Your task to perform on an android device: turn off picture-in-picture Image 0: 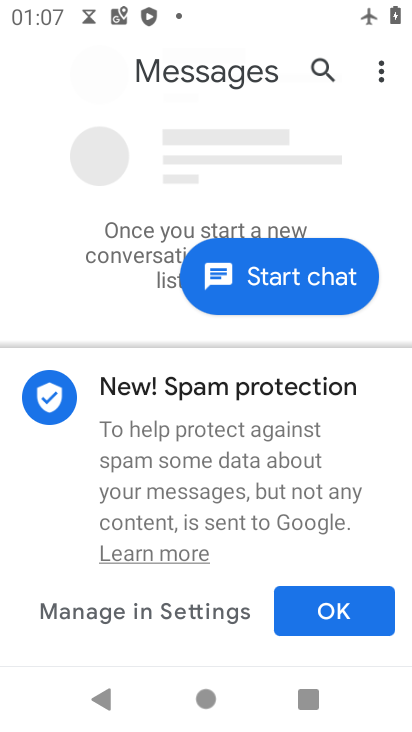
Step 0: press home button
Your task to perform on an android device: turn off picture-in-picture Image 1: 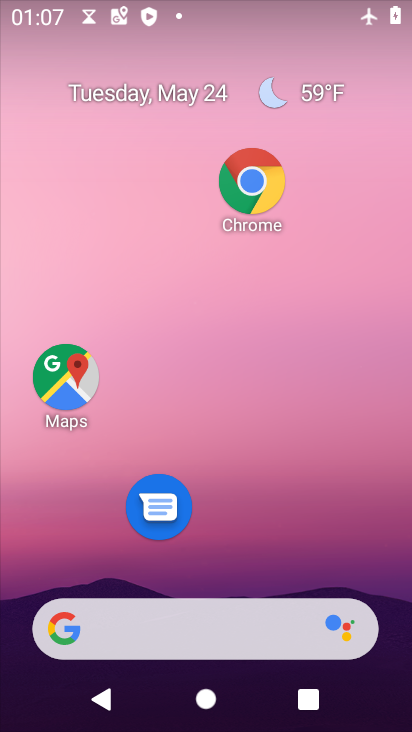
Step 1: drag from (209, 536) to (267, 264)
Your task to perform on an android device: turn off picture-in-picture Image 2: 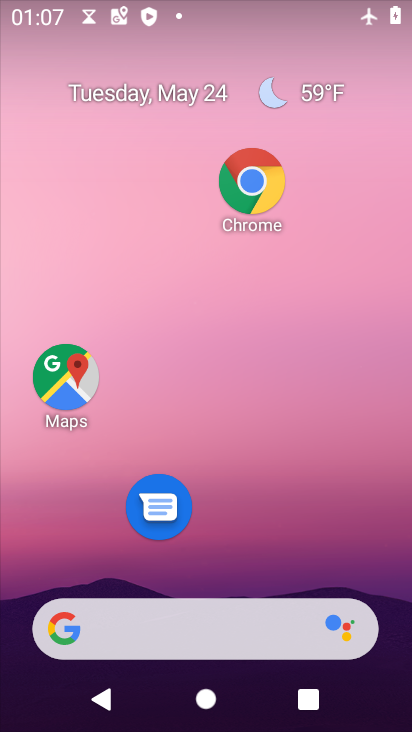
Step 2: drag from (204, 582) to (240, 383)
Your task to perform on an android device: turn off picture-in-picture Image 3: 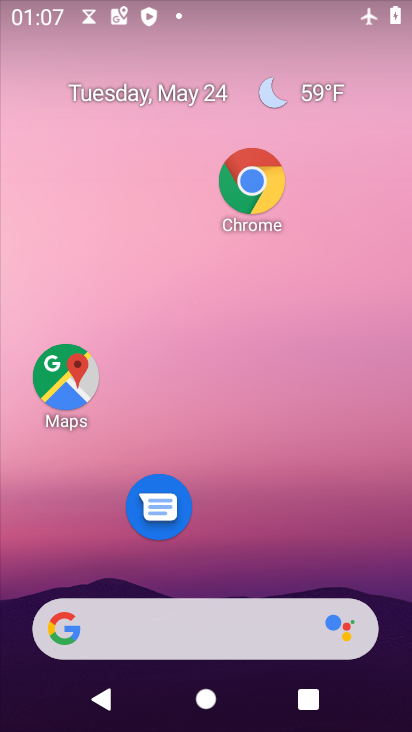
Step 3: drag from (263, 567) to (296, 322)
Your task to perform on an android device: turn off picture-in-picture Image 4: 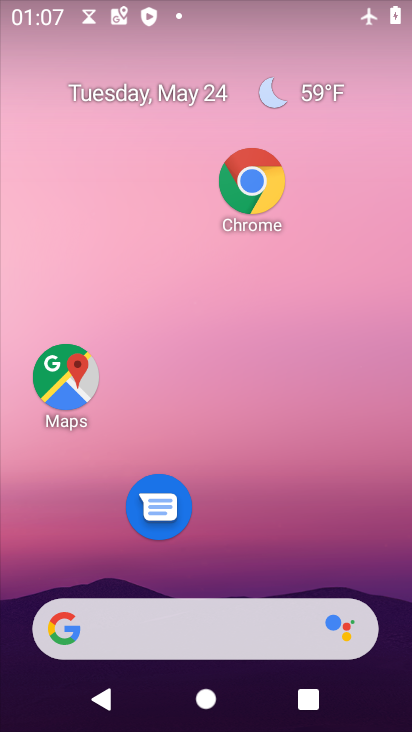
Step 4: drag from (239, 434) to (270, 207)
Your task to perform on an android device: turn off picture-in-picture Image 5: 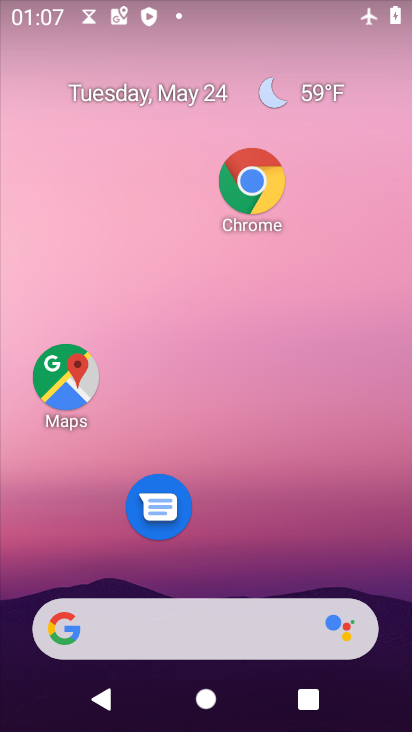
Step 5: drag from (197, 618) to (261, 289)
Your task to perform on an android device: turn off picture-in-picture Image 6: 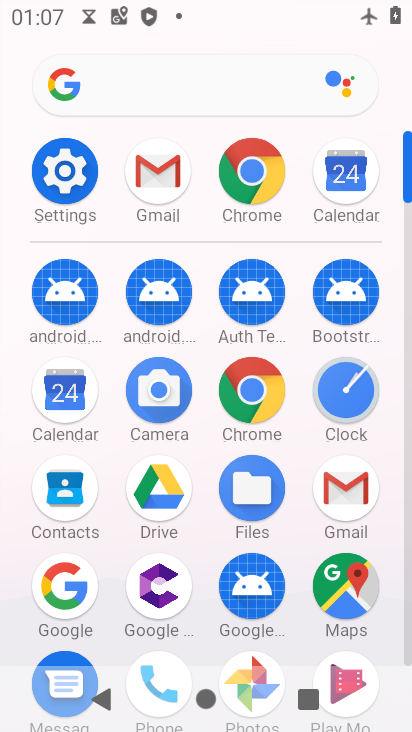
Step 6: click (68, 164)
Your task to perform on an android device: turn off picture-in-picture Image 7: 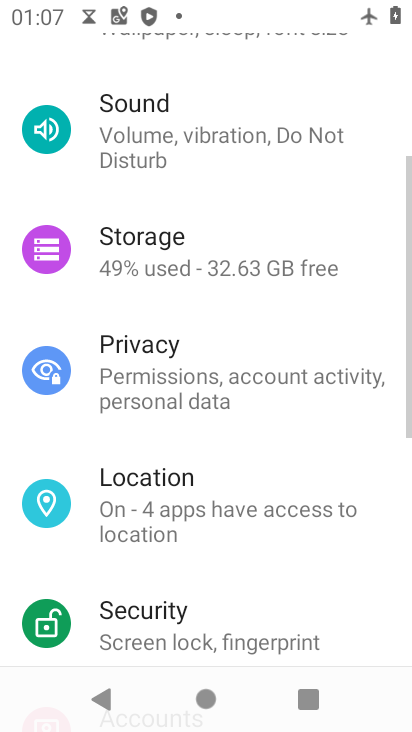
Step 7: drag from (283, 617) to (326, 209)
Your task to perform on an android device: turn off picture-in-picture Image 8: 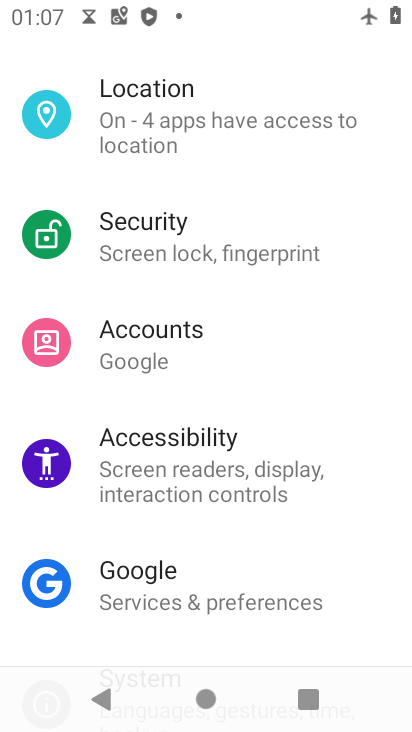
Step 8: click (199, 589)
Your task to perform on an android device: turn off picture-in-picture Image 9: 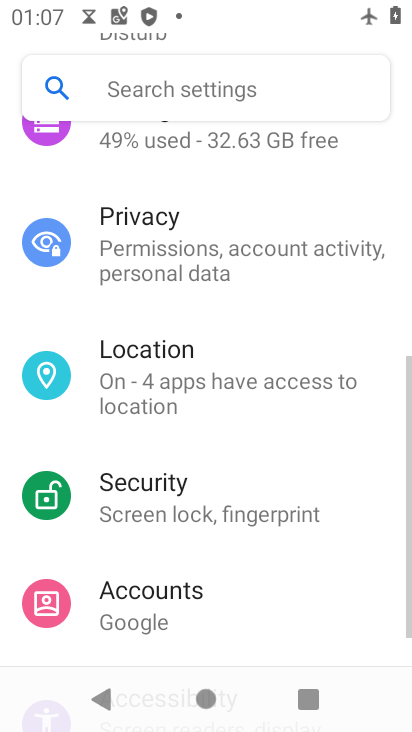
Step 9: drag from (225, 238) to (208, 651)
Your task to perform on an android device: turn off picture-in-picture Image 10: 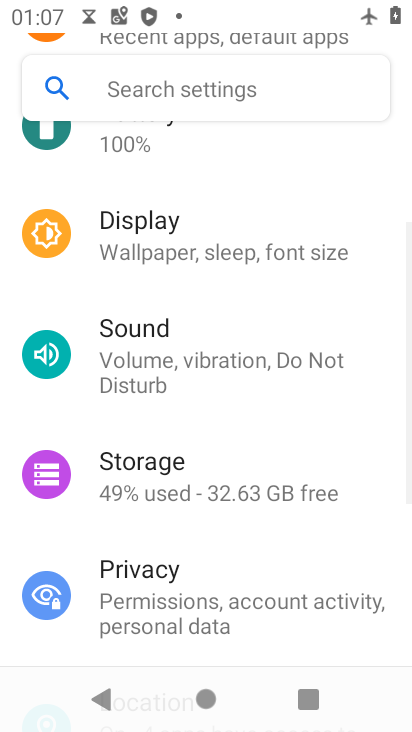
Step 10: drag from (207, 173) to (174, 595)
Your task to perform on an android device: turn off picture-in-picture Image 11: 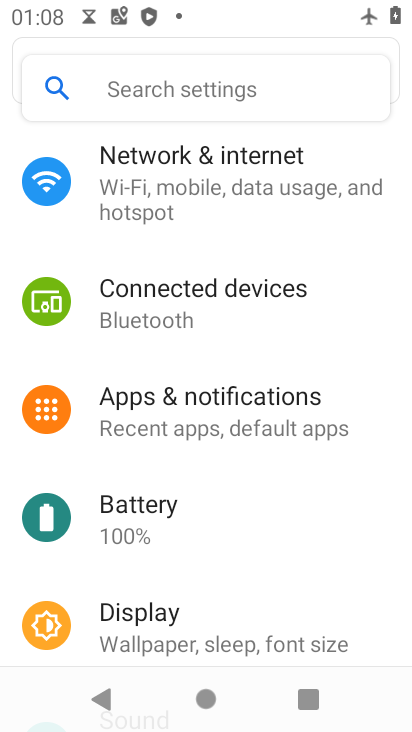
Step 11: drag from (229, 203) to (208, 501)
Your task to perform on an android device: turn off picture-in-picture Image 12: 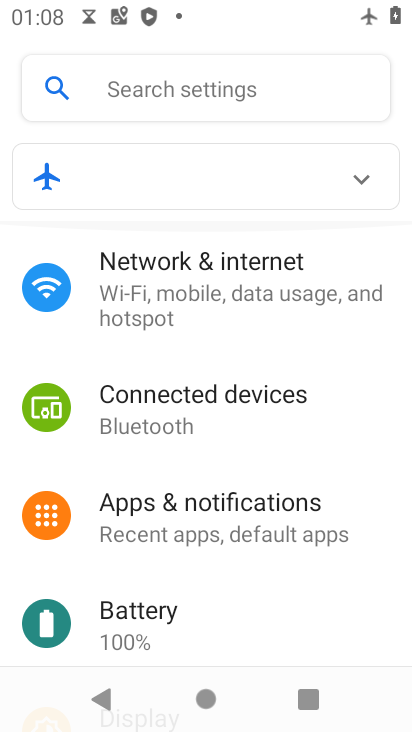
Step 12: click (198, 506)
Your task to perform on an android device: turn off picture-in-picture Image 13: 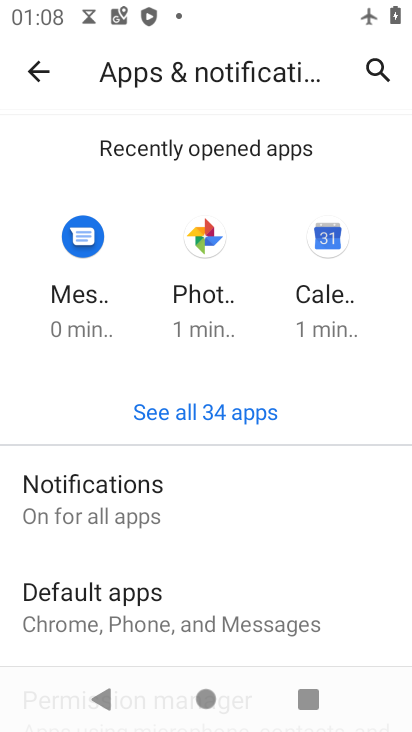
Step 13: click (176, 491)
Your task to perform on an android device: turn off picture-in-picture Image 14: 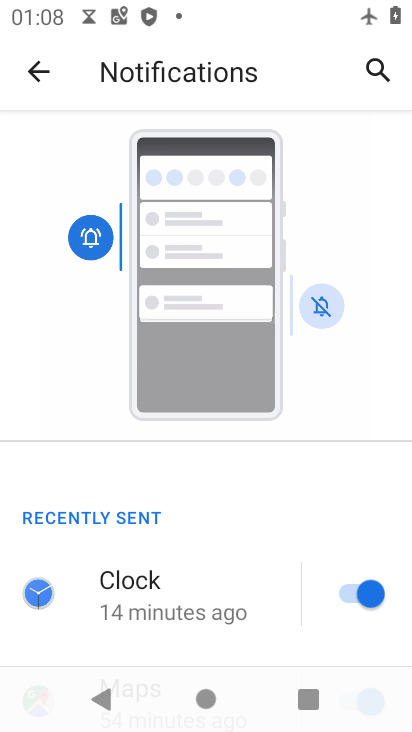
Step 14: drag from (210, 512) to (294, 136)
Your task to perform on an android device: turn off picture-in-picture Image 15: 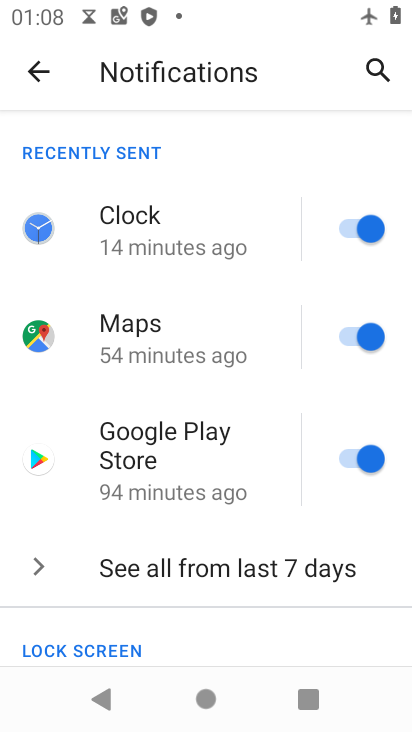
Step 15: drag from (202, 521) to (248, 126)
Your task to perform on an android device: turn off picture-in-picture Image 16: 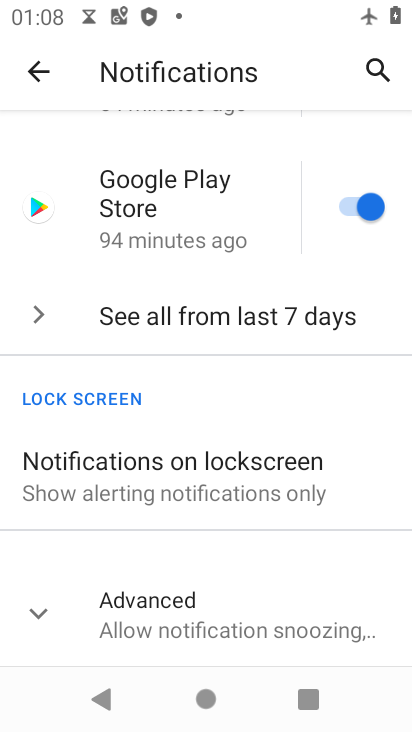
Step 16: drag from (224, 520) to (307, 151)
Your task to perform on an android device: turn off picture-in-picture Image 17: 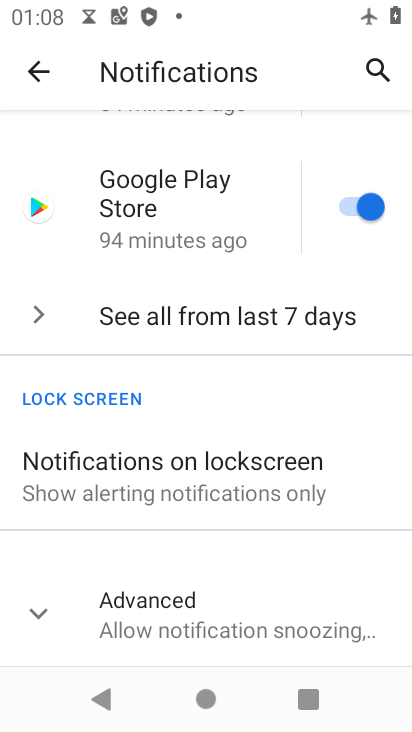
Step 17: click (189, 500)
Your task to perform on an android device: turn off picture-in-picture Image 18: 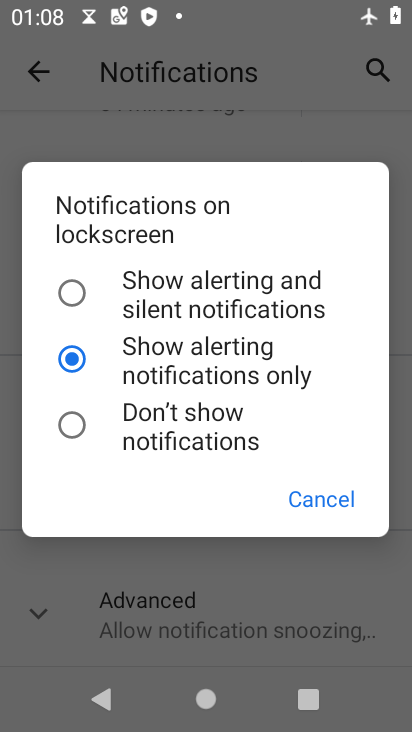
Step 18: click (287, 506)
Your task to perform on an android device: turn off picture-in-picture Image 19: 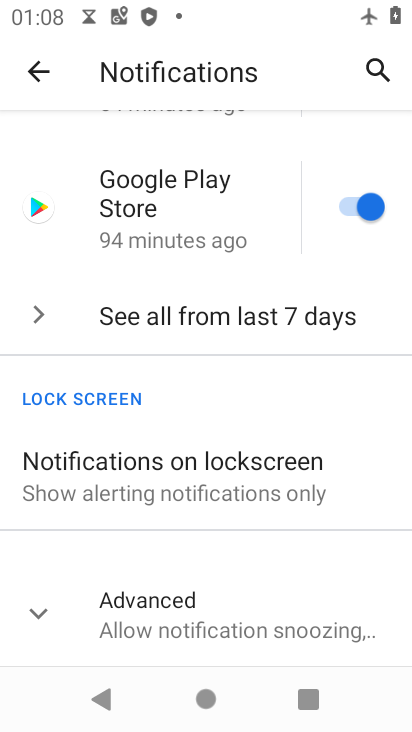
Step 19: click (185, 626)
Your task to perform on an android device: turn off picture-in-picture Image 20: 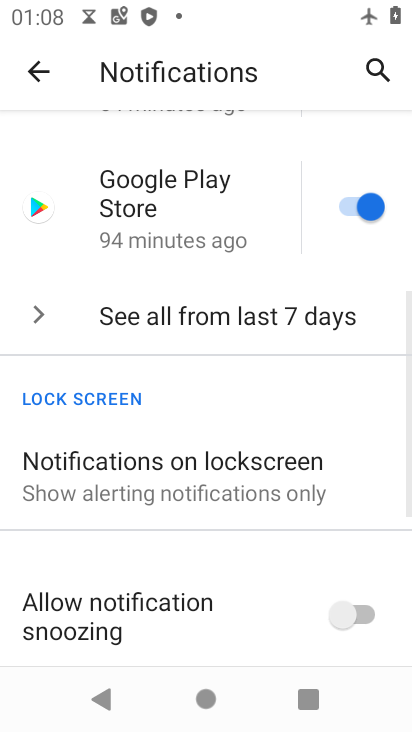
Step 20: drag from (179, 572) to (255, 42)
Your task to perform on an android device: turn off picture-in-picture Image 21: 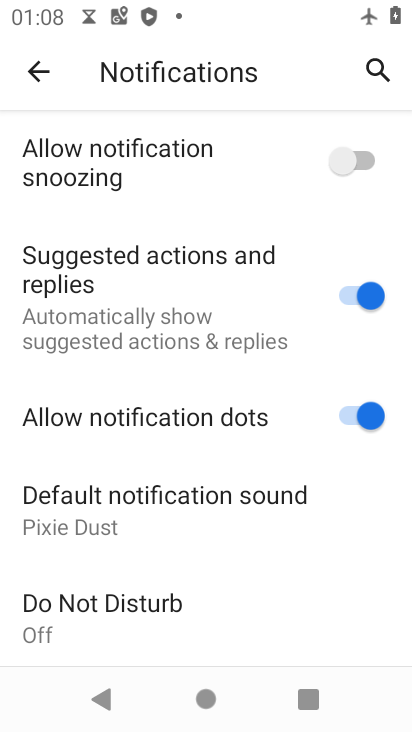
Step 21: click (64, 57)
Your task to perform on an android device: turn off picture-in-picture Image 22: 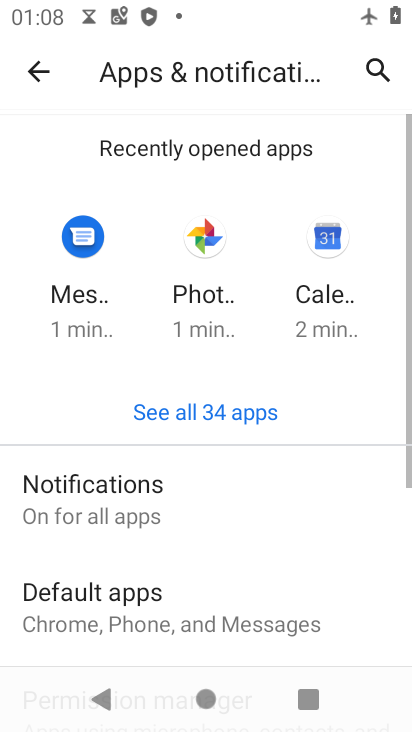
Step 22: drag from (301, 585) to (339, 309)
Your task to perform on an android device: turn off picture-in-picture Image 23: 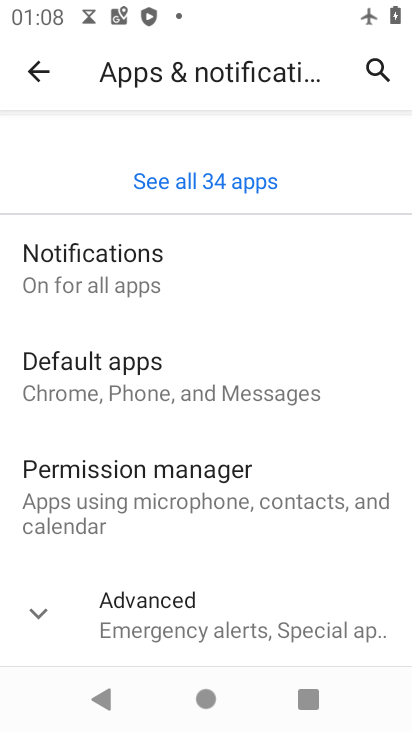
Step 23: click (287, 630)
Your task to perform on an android device: turn off picture-in-picture Image 24: 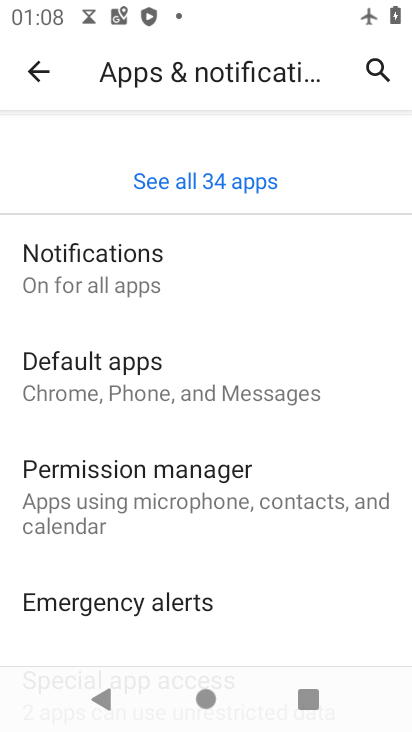
Step 24: drag from (266, 545) to (265, 196)
Your task to perform on an android device: turn off picture-in-picture Image 25: 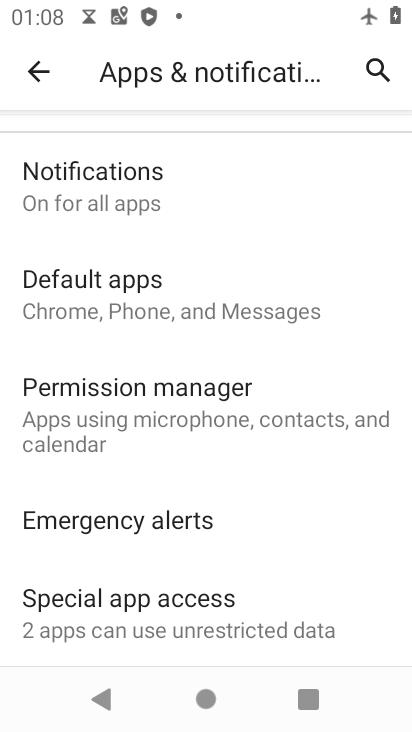
Step 25: click (239, 609)
Your task to perform on an android device: turn off picture-in-picture Image 26: 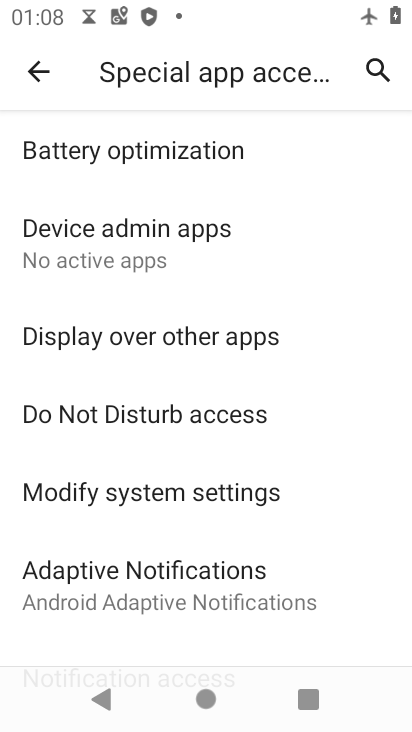
Step 26: drag from (234, 587) to (281, 187)
Your task to perform on an android device: turn off picture-in-picture Image 27: 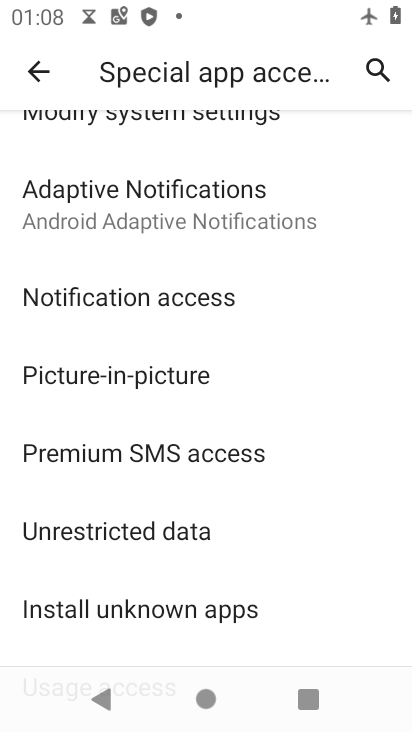
Step 27: click (162, 361)
Your task to perform on an android device: turn off picture-in-picture Image 28: 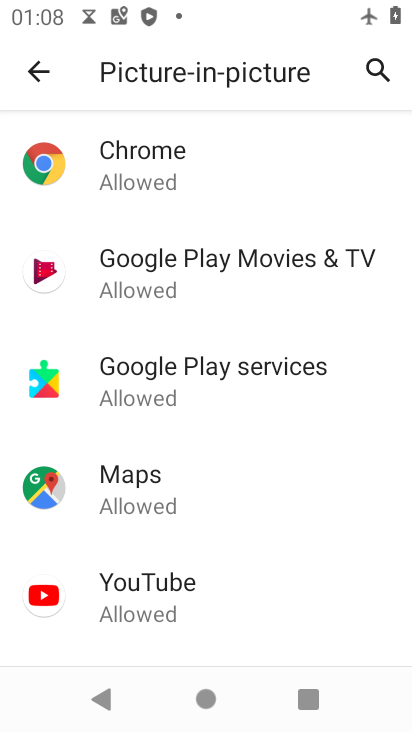
Step 28: drag from (282, 492) to (272, 345)
Your task to perform on an android device: turn off picture-in-picture Image 29: 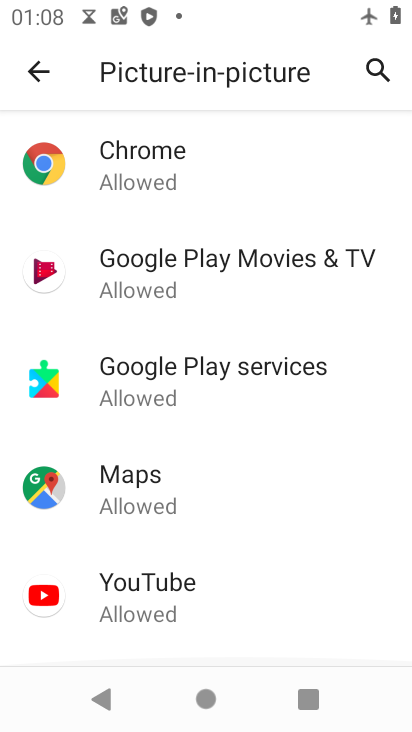
Step 29: click (231, 582)
Your task to perform on an android device: turn off picture-in-picture Image 30: 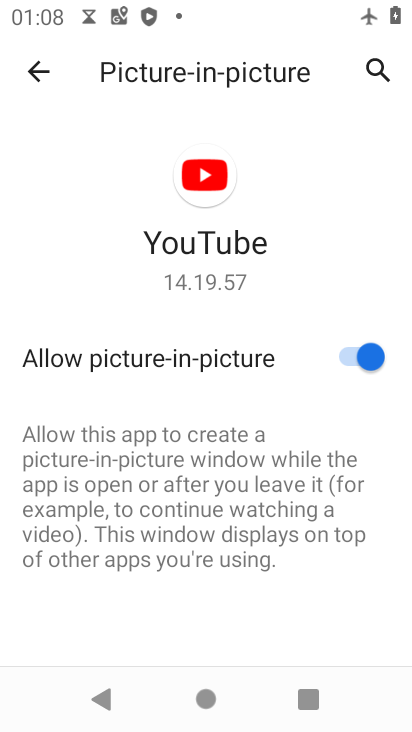
Step 30: click (336, 350)
Your task to perform on an android device: turn off picture-in-picture Image 31: 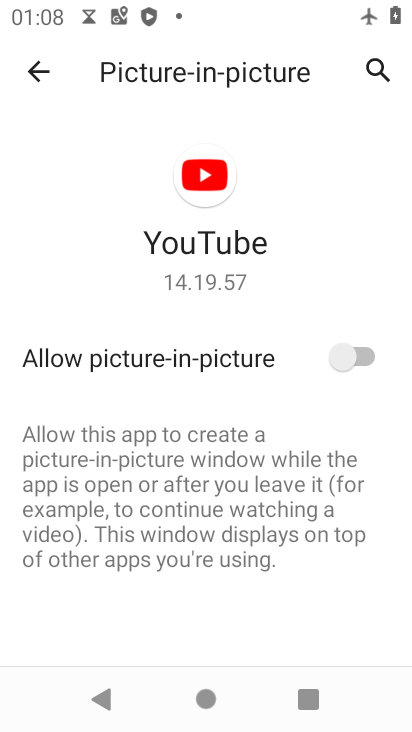
Step 31: task complete